Your task to perform on an android device: Turn off the flashlight Image 0: 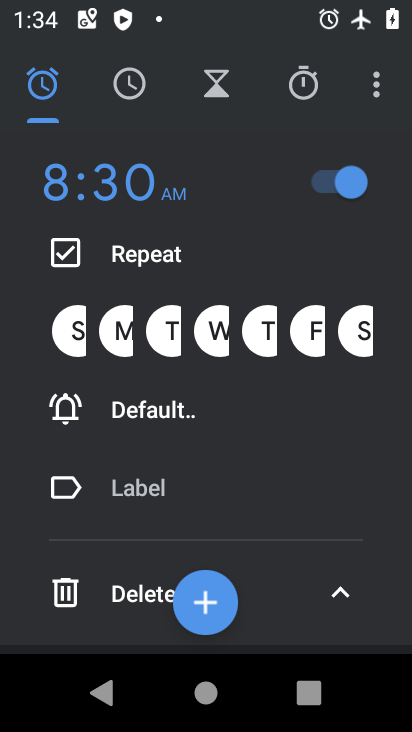
Step 0: press home button
Your task to perform on an android device: Turn off the flashlight Image 1: 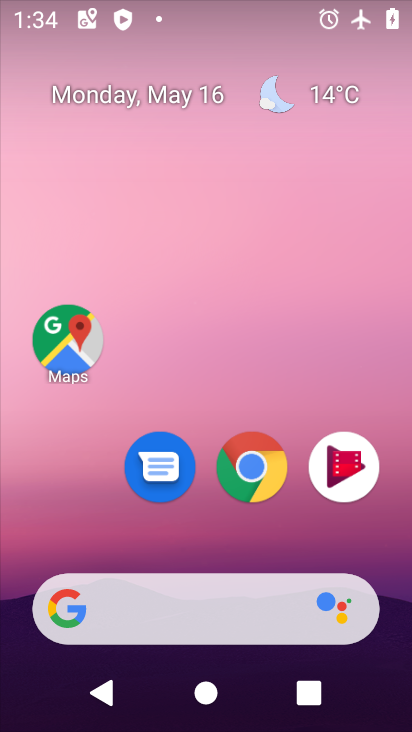
Step 1: drag from (227, 461) to (256, 181)
Your task to perform on an android device: Turn off the flashlight Image 2: 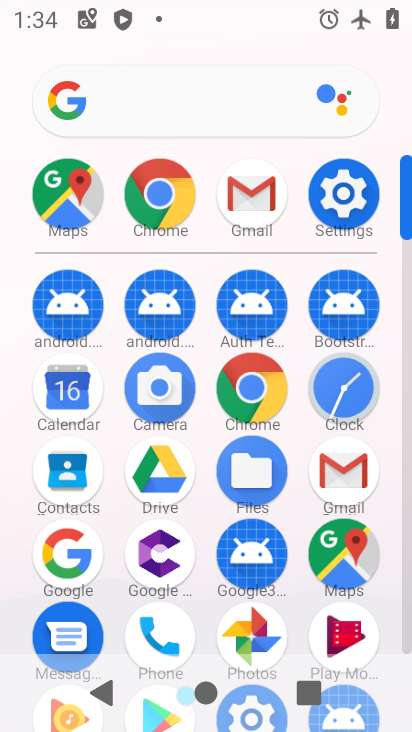
Step 2: click (344, 180)
Your task to perform on an android device: Turn off the flashlight Image 3: 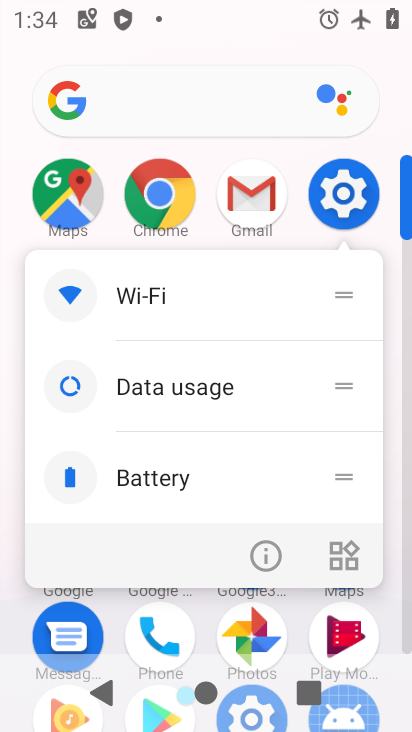
Step 3: click (332, 194)
Your task to perform on an android device: Turn off the flashlight Image 4: 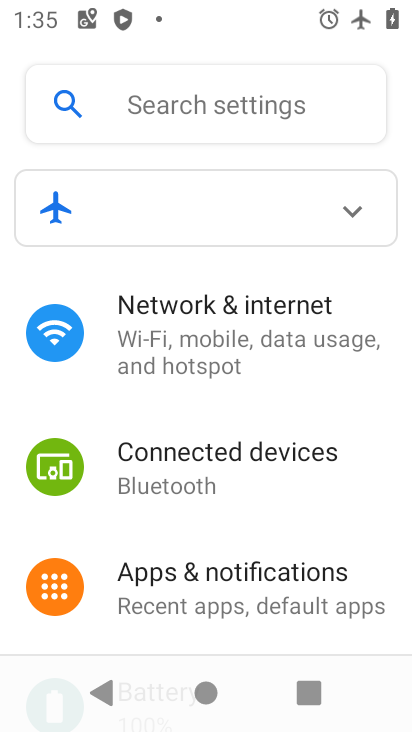
Step 4: task complete